Your task to perform on an android device: Open maps Image 0: 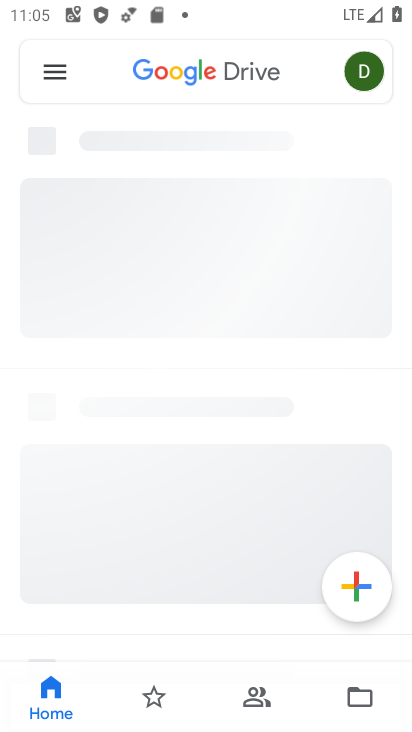
Step 0: click (263, 584)
Your task to perform on an android device: Open maps Image 1: 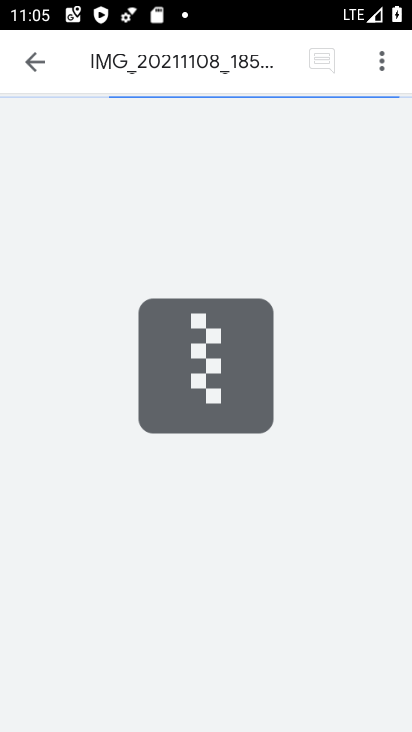
Step 1: press home button
Your task to perform on an android device: Open maps Image 2: 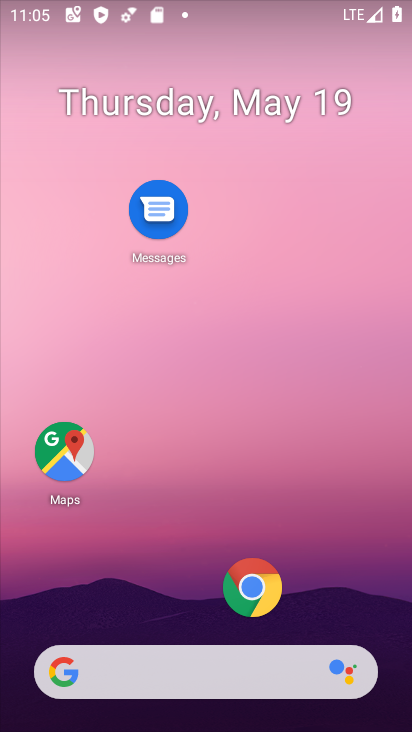
Step 2: click (51, 439)
Your task to perform on an android device: Open maps Image 3: 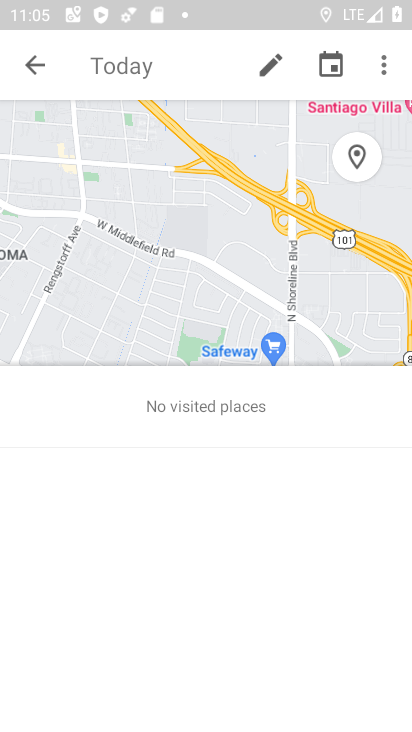
Step 3: task complete